Your task to perform on an android device: Open Google Chrome and click the shortcut for Amazon.com Image 0: 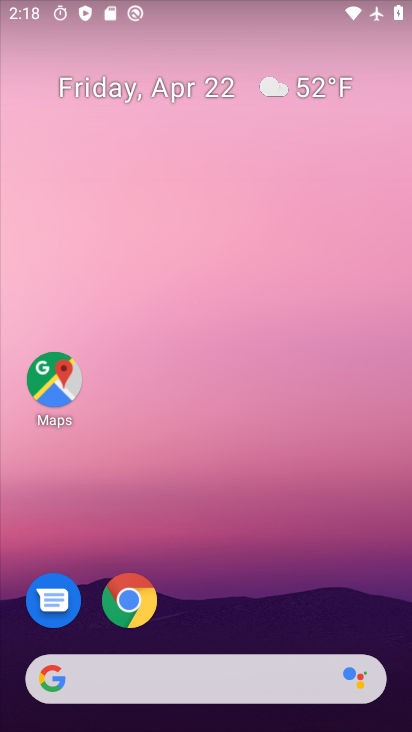
Step 0: click (125, 601)
Your task to perform on an android device: Open Google Chrome and click the shortcut for Amazon.com Image 1: 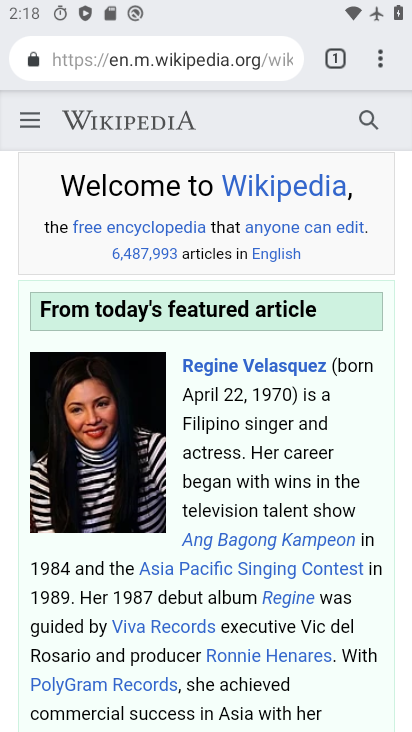
Step 1: drag from (380, 57) to (162, 191)
Your task to perform on an android device: Open Google Chrome and click the shortcut for Amazon.com Image 2: 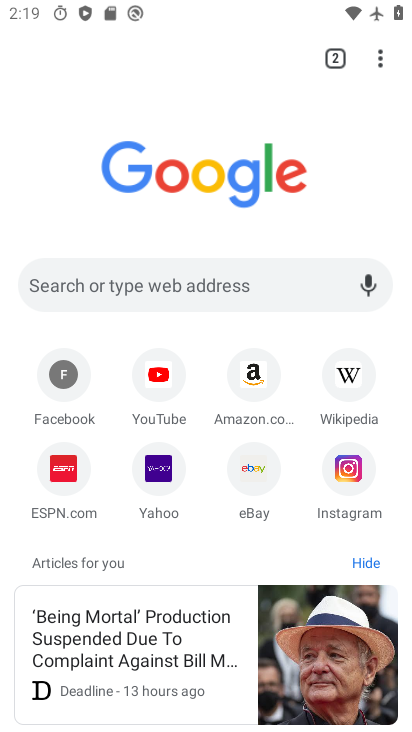
Step 2: click (249, 375)
Your task to perform on an android device: Open Google Chrome and click the shortcut for Amazon.com Image 3: 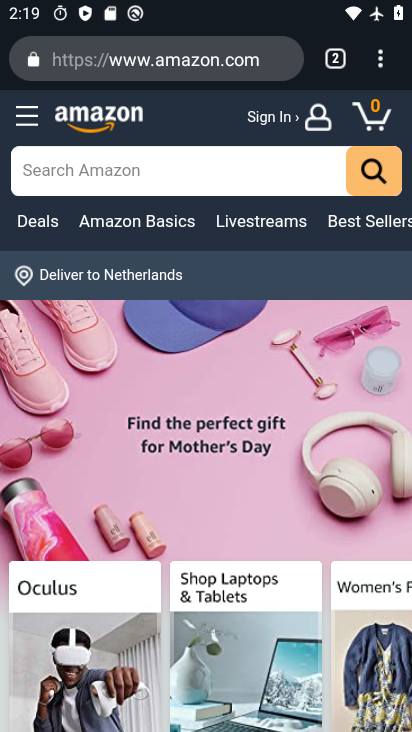
Step 3: task complete